Your task to perform on an android device: Check the settings for the Instagram app Image 0: 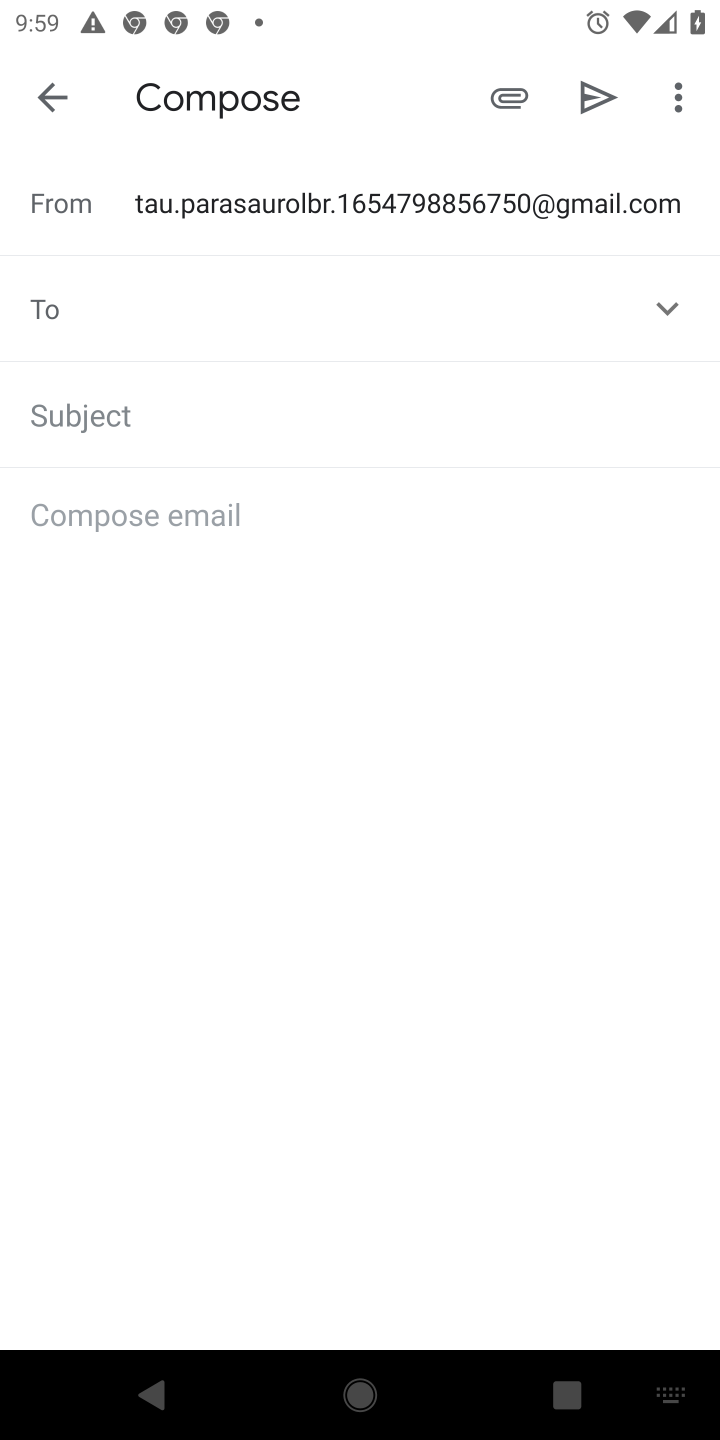
Step 0: press home button
Your task to perform on an android device: Check the settings for the Instagram app Image 1: 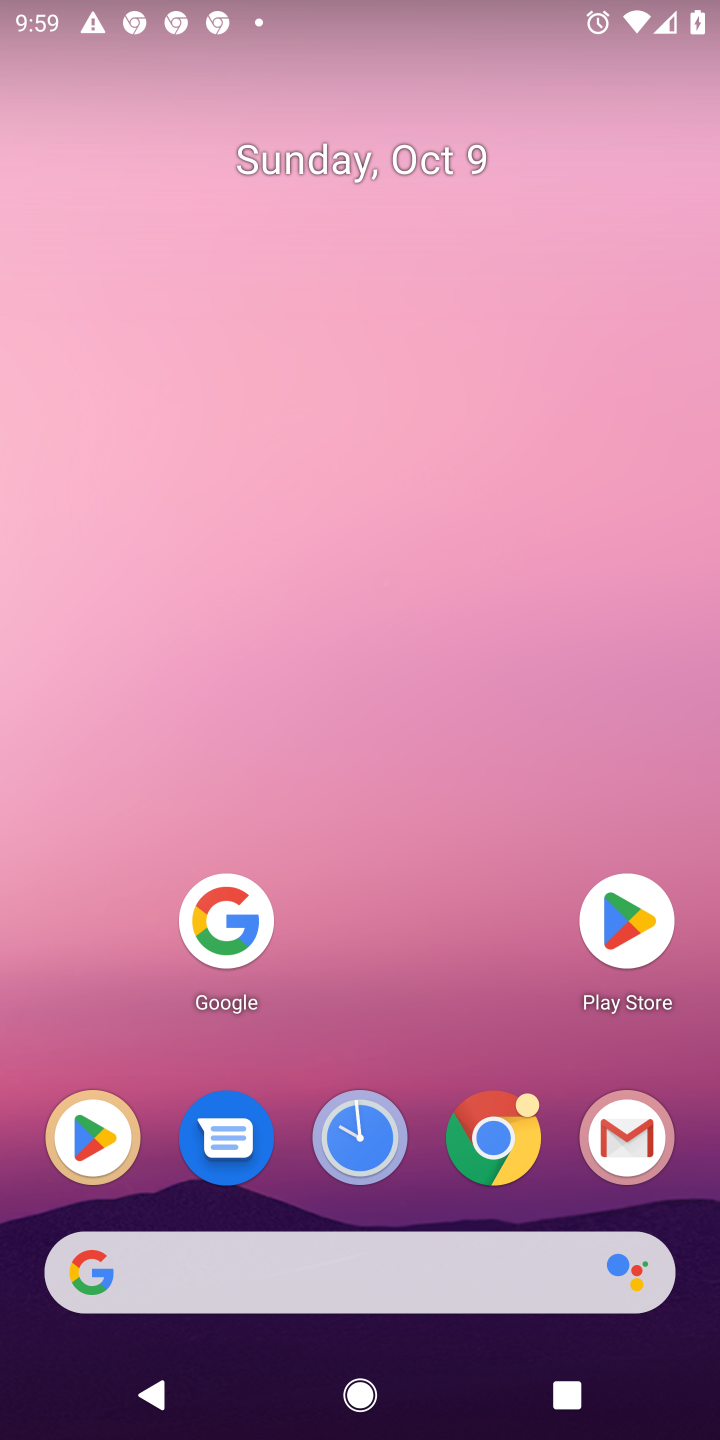
Step 1: drag from (332, 1106) to (373, 498)
Your task to perform on an android device: Check the settings for the Instagram app Image 2: 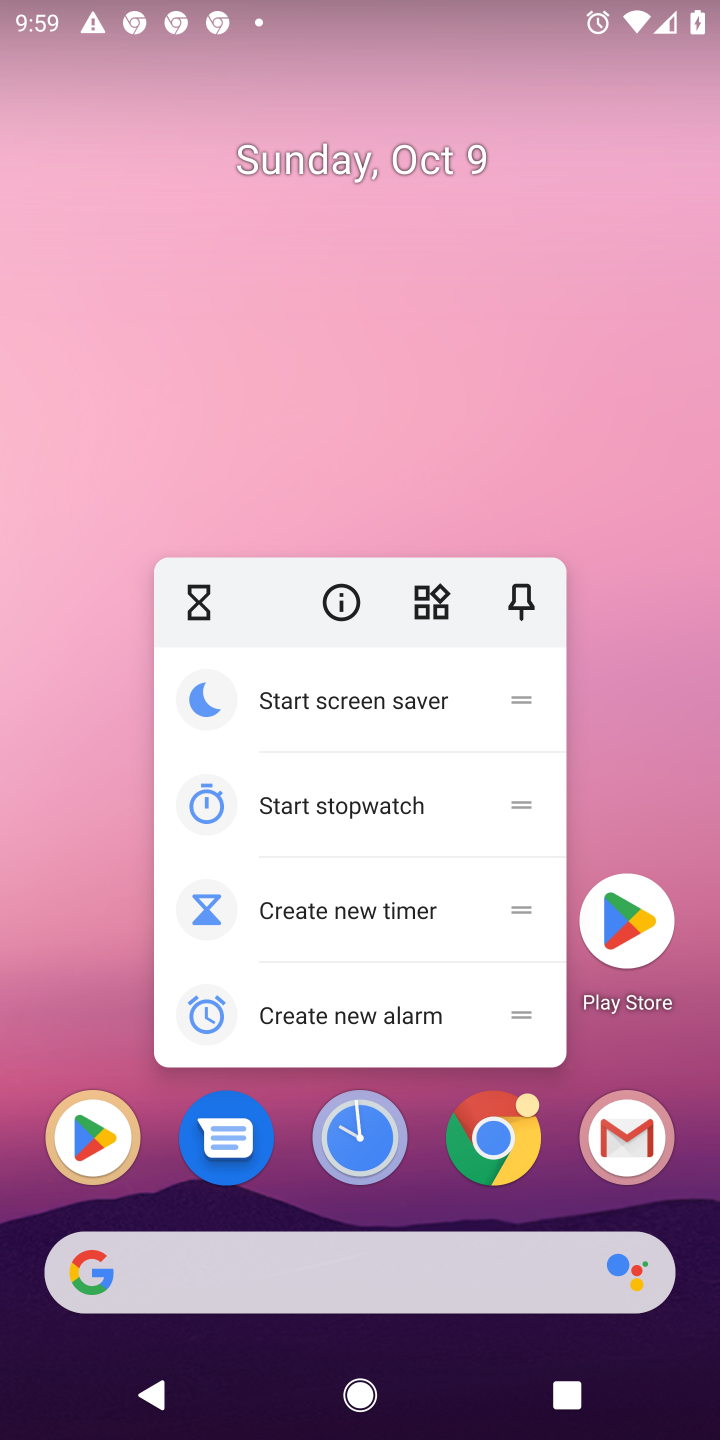
Step 2: click (62, 950)
Your task to perform on an android device: Check the settings for the Instagram app Image 3: 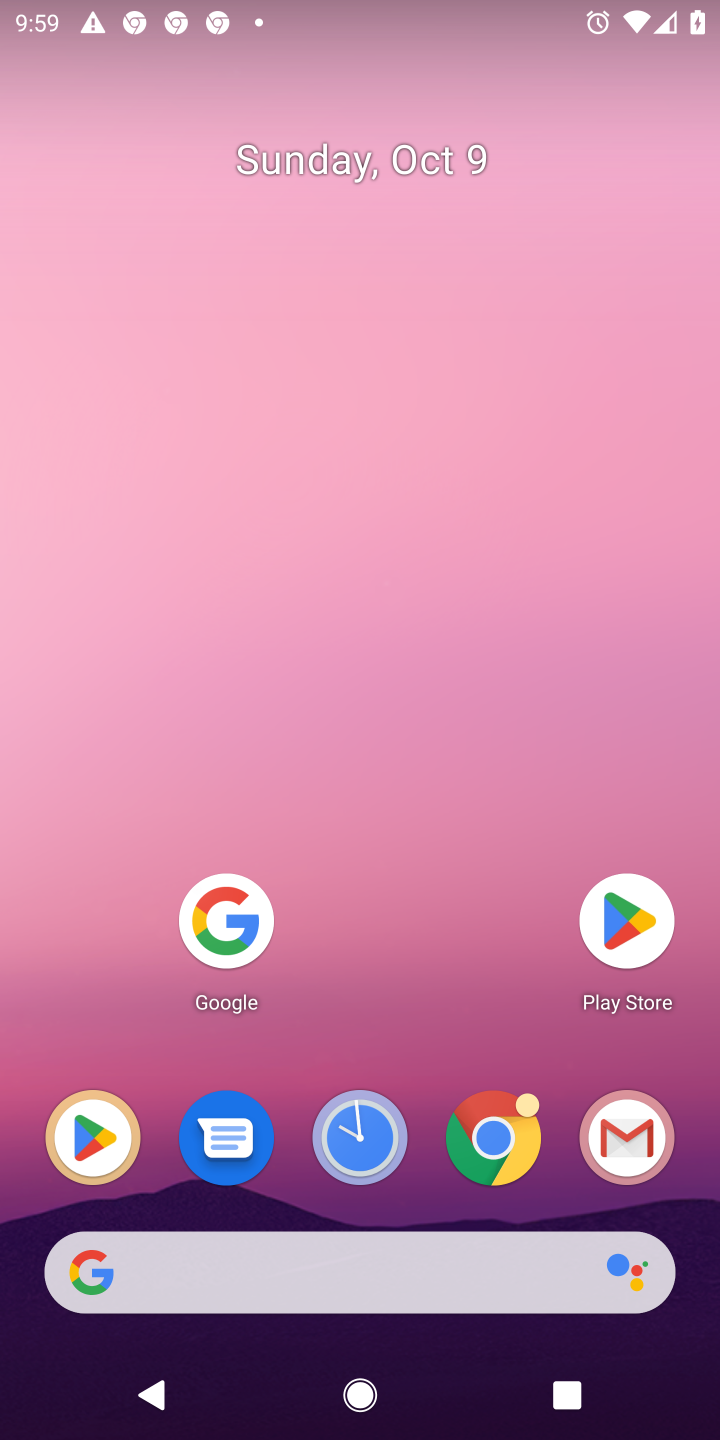
Step 3: drag from (321, 705) to (348, 482)
Your task to perform on an android device: Check the settings for the Instagram app Image 4: 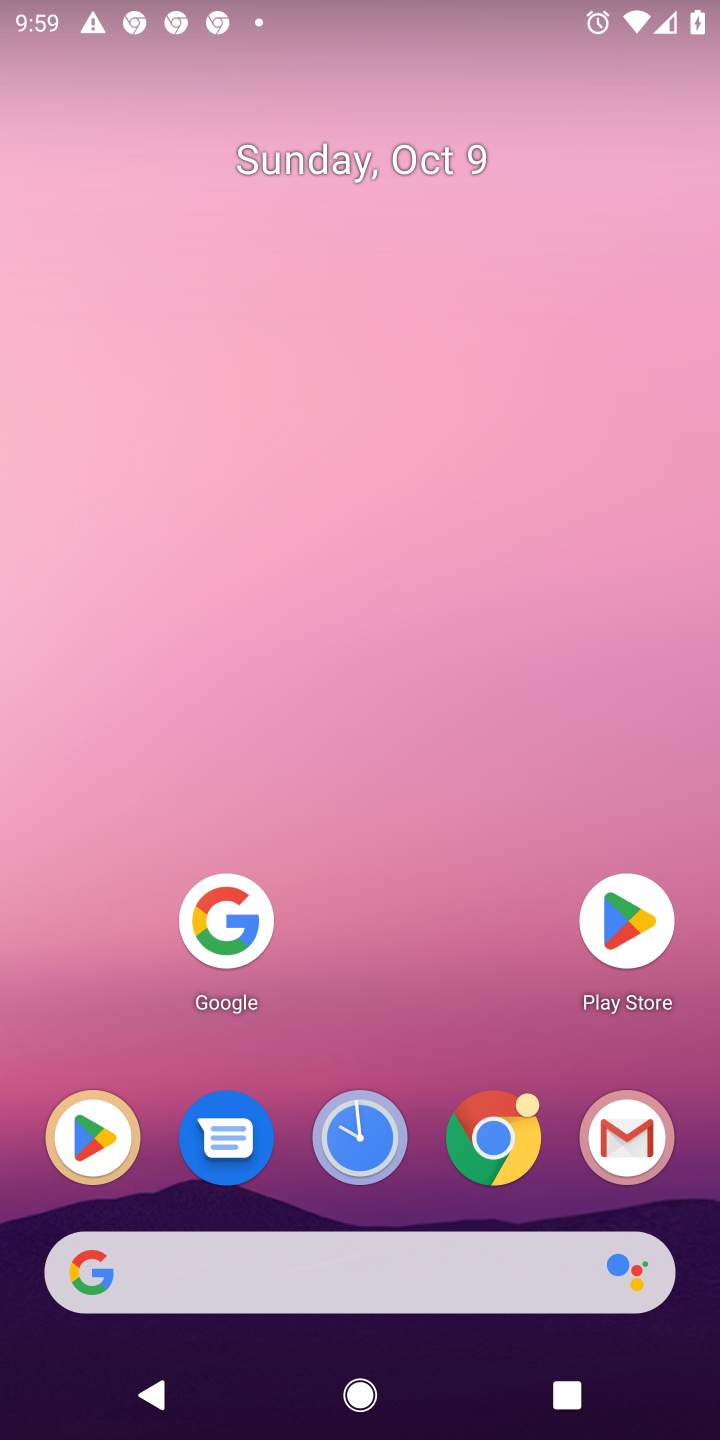
Step 4: drag from (307, 1223) to (404, 234)
Your task to perform on an android device: Check the settings for the Instagram app Image 5: 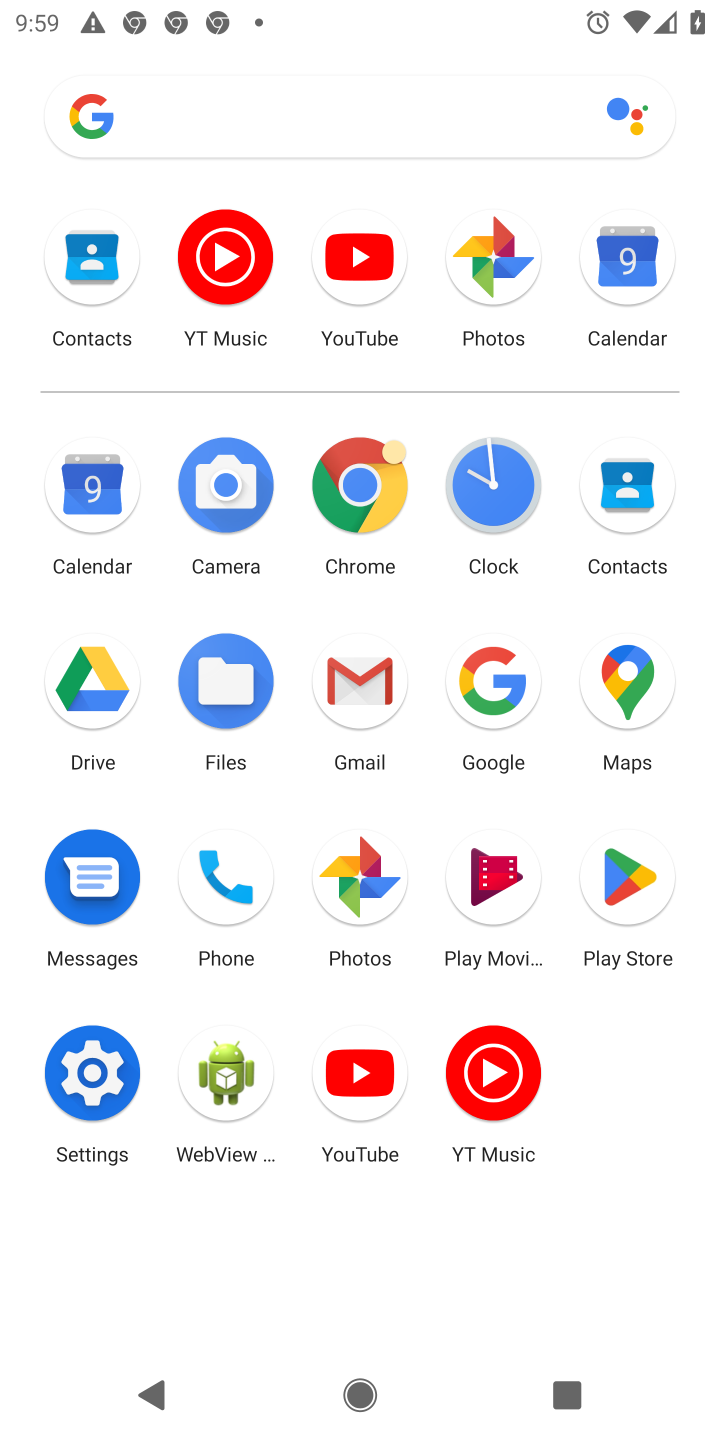
Step 5: click (607, 871)
Your task to perform on an android device: Check the settings for the Instagram app Image 6: 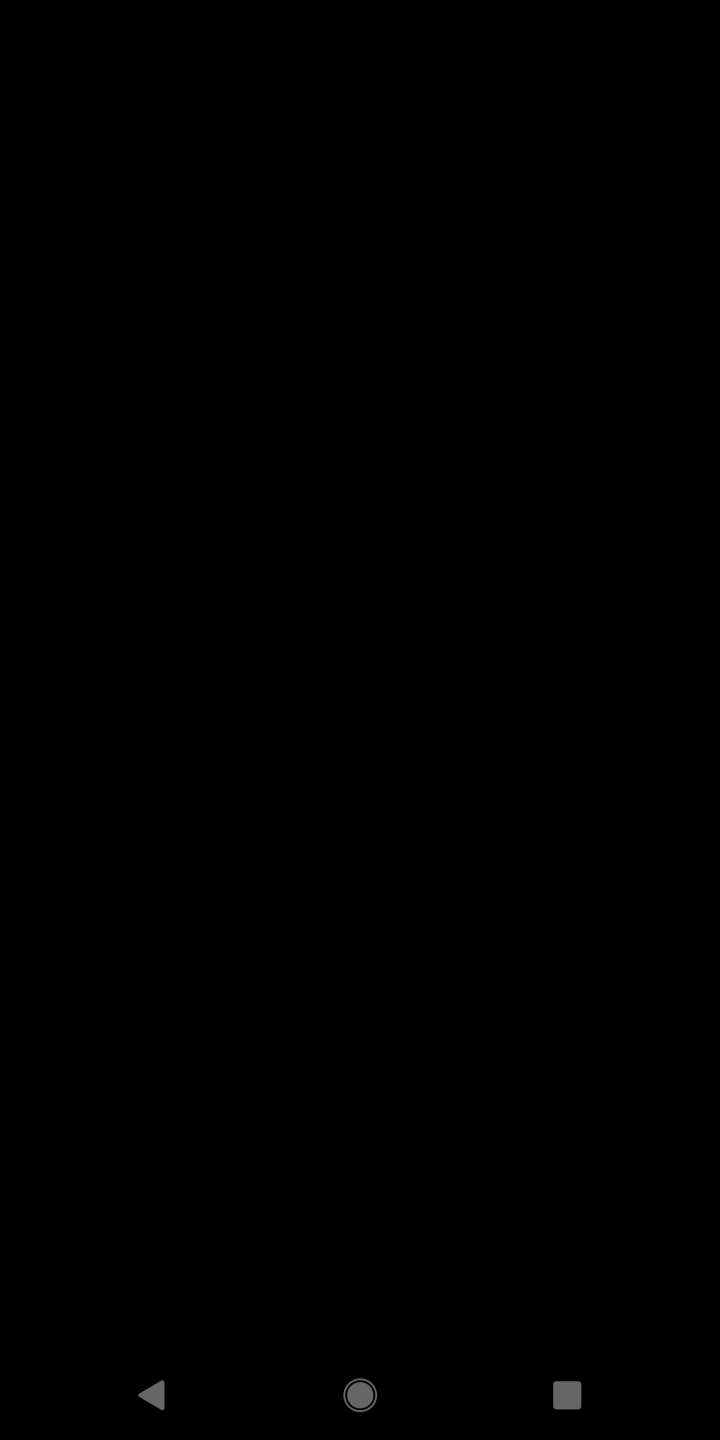
Step 6: click (619, 877)
Your task to perform on an android device: Check the settings for the Instagram app Image 7: 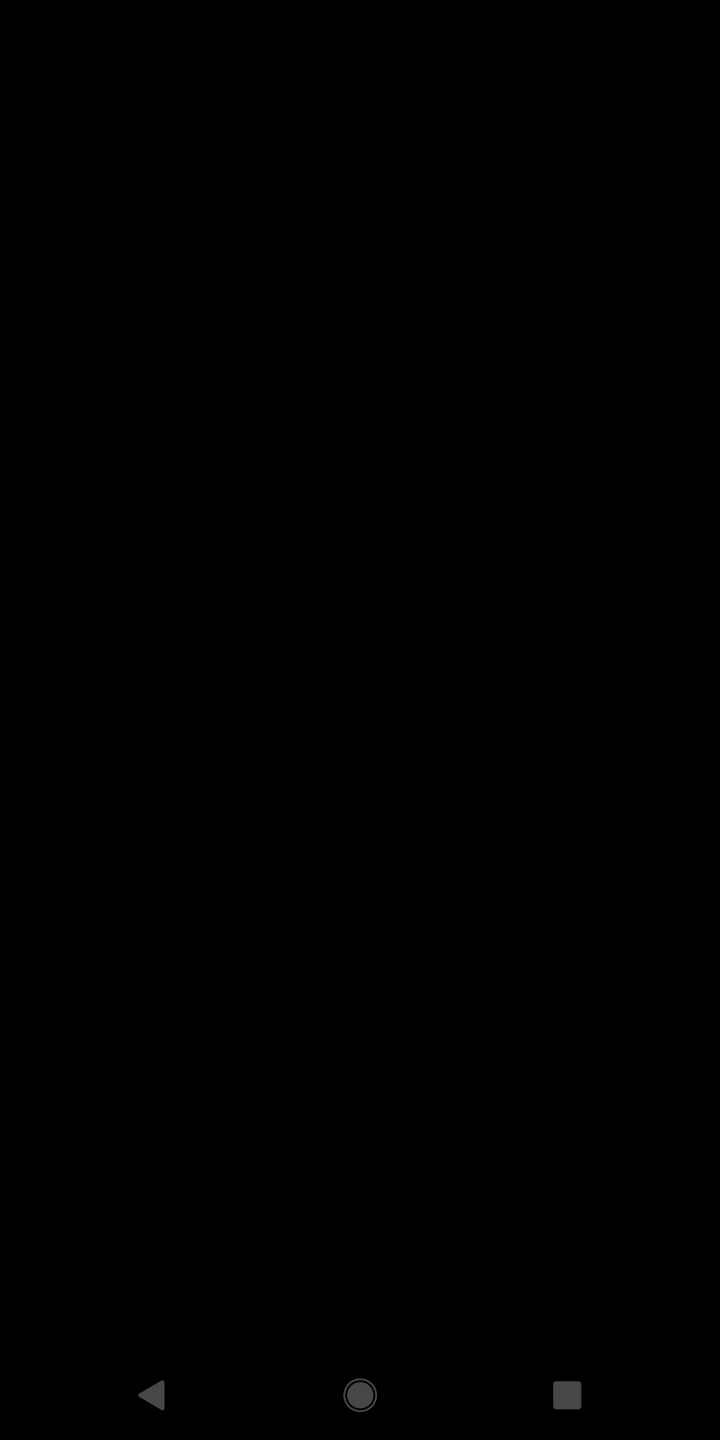
Step 7: task complete